Your task to perform on an android device: turn on translation in the chrome app Image 0: 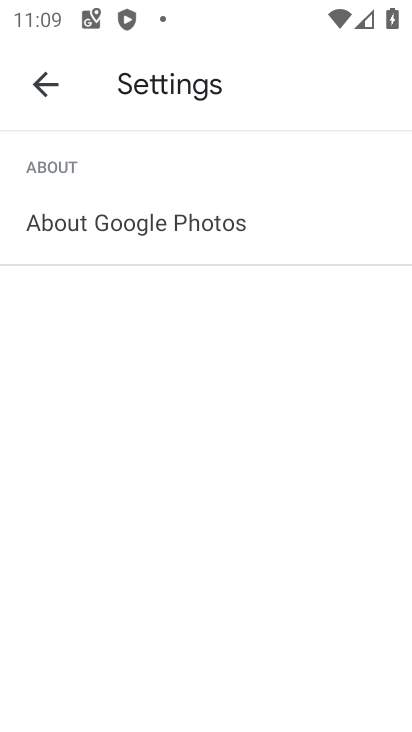
Step 0: press home button
Your task to perform on an android device: turn on translation in the chrome app Image 1: 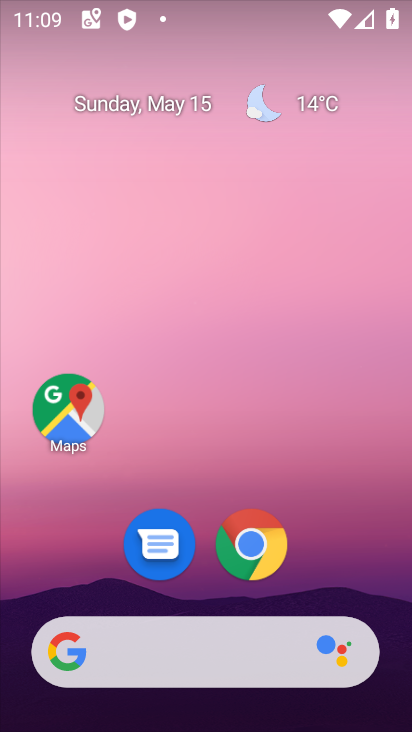
Step 1: click (281, 550)
Your task to perform on an android device: turn on translation in the chrome app Image 2: 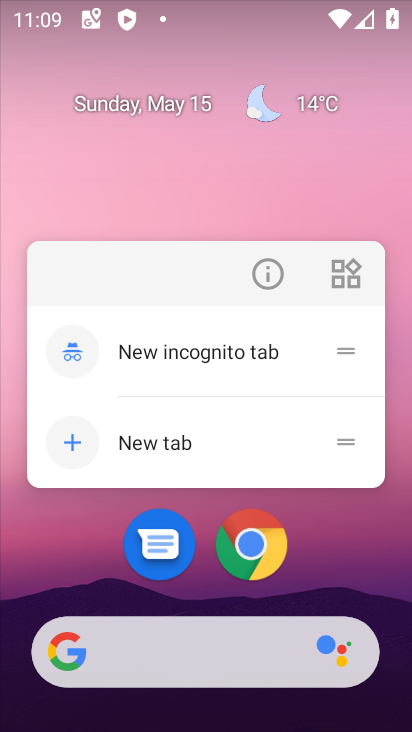
Step 2: click (274, 550)
Your task to perform on an android device: turn on translation in the chrome app Image 3: 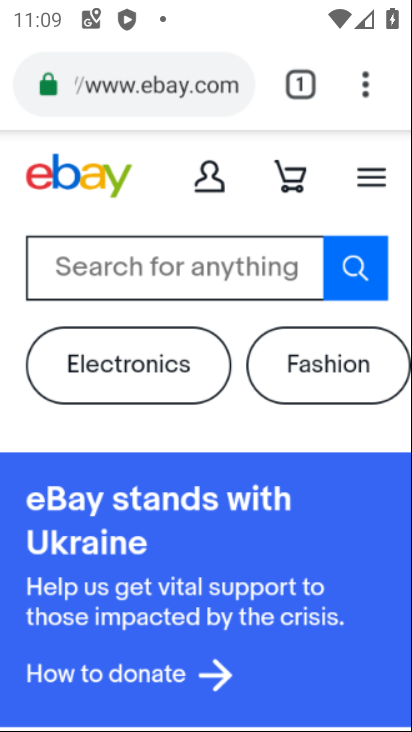
Step 3: drag from (378, 93) to (241, 600)
Your task to perform on an android device: turn on translation in the chrome app Image 4: 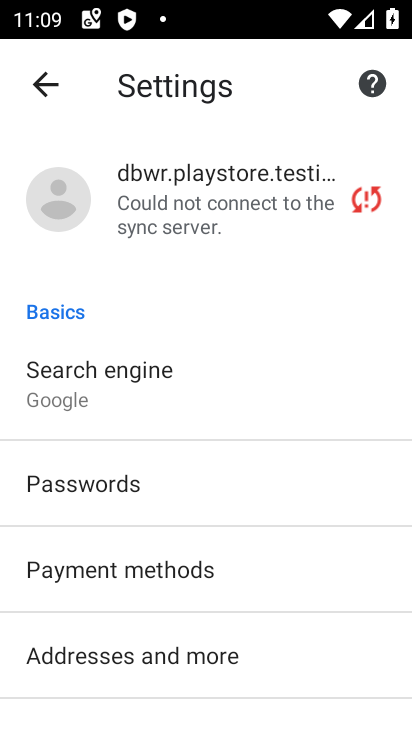
Step 4: drag from (185, 692) to (327, 289)
Your task to perform on an android device: turn on translation in the chrome app Image 5: 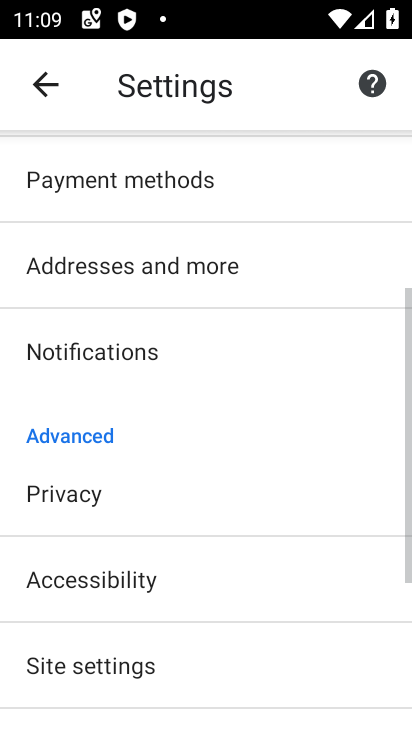
Step 5: drag from (226, 613) to (322, 317)
Your task to perform on an android device: turn on translation in the chrome app Image 6: 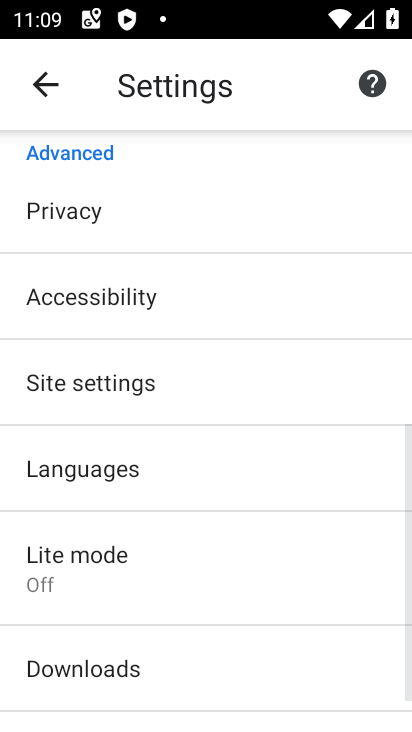
Step 6: click (170, 472)
Your task to perform on an android device: turn on translation in the chrome app Image 7: 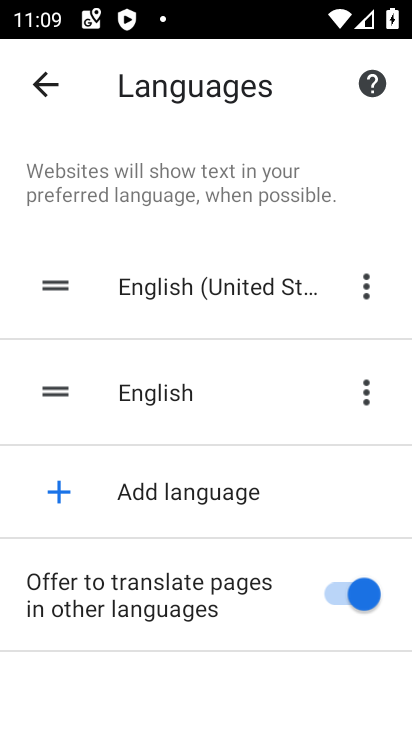
Step 7: task complete